Your task to perform on an android device: Open CNN.com Image 0: 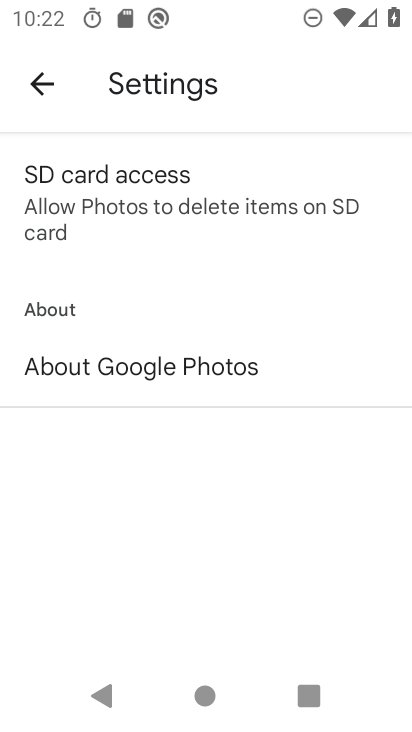
Step 0: press home button
Your task to perform on an android device: Open CNN.com Image 1: 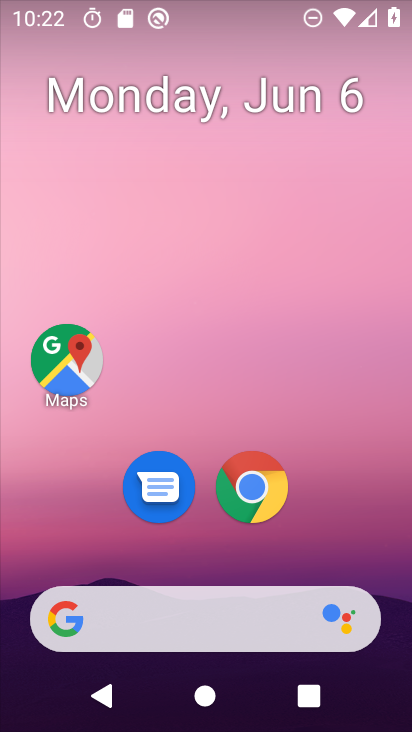
Step 1: drag from (392, 630) to (332, 23)
Your task to perform on an android device: Open CNN.com Image 2: 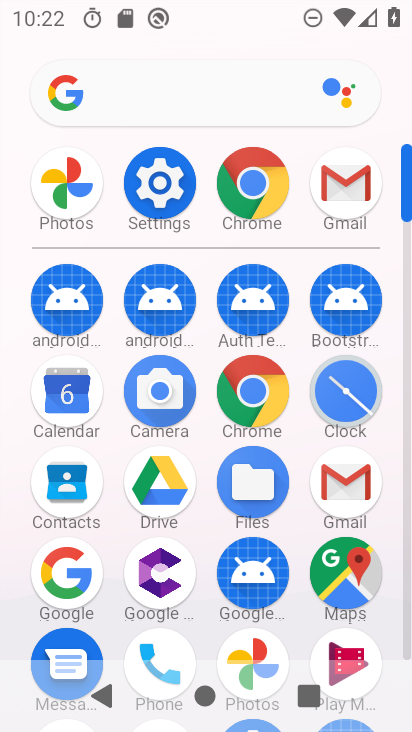
Step 2: click (79, 581)
Your task to perform on an android device: Open CNN.com Image 3: 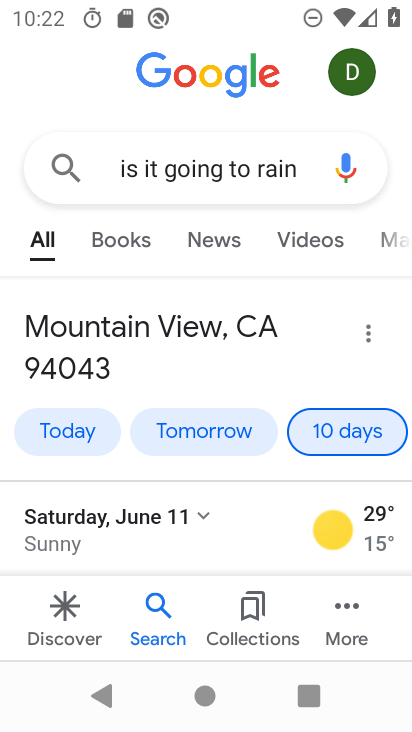
Step 3: press back button
Your task to perform on an android device: Open CNN.com Image 4: 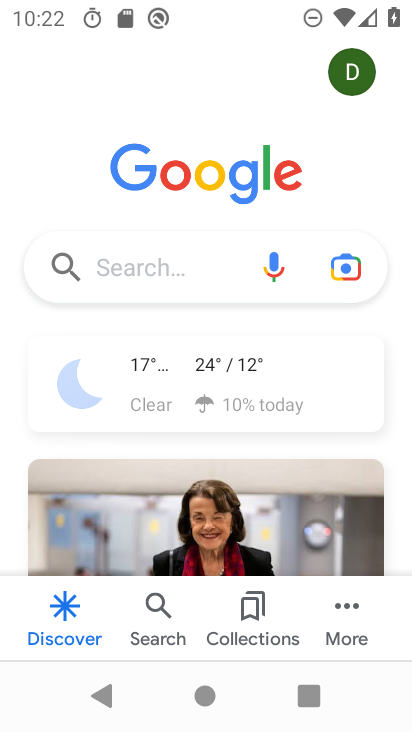
Step 4: click (132, 269)
Your task to perform on an android device: Open CNN.com Image 5: 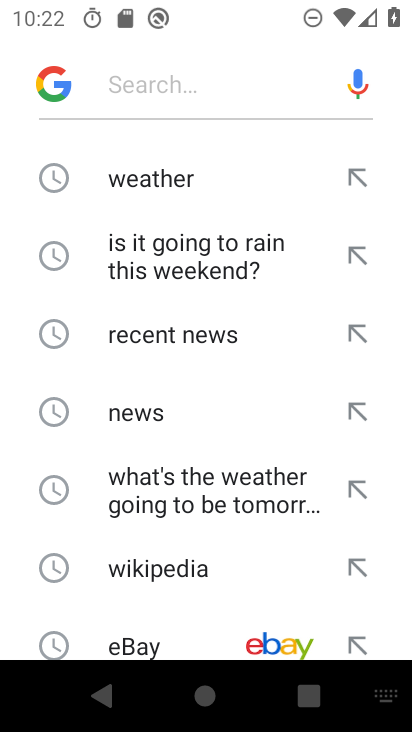
Step 5: drag from (122, 548) to (207, 102)
Your task to perform on an android device: Open CNN.com Image 6: 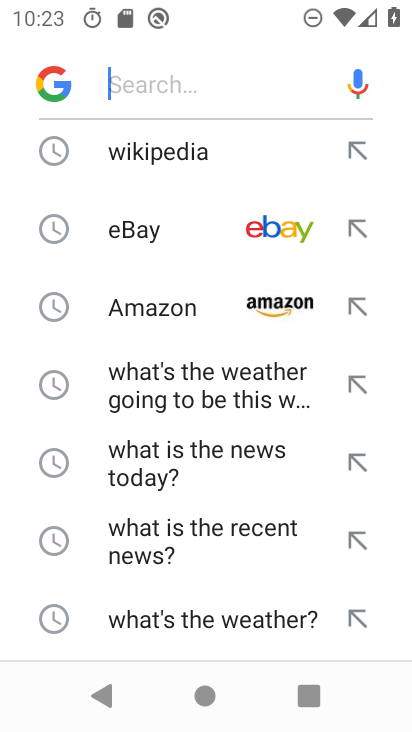
Step 6: drag from (104, 593) to (216, 93)
Your task to perform on an android device: Open CNN.com Image 7: 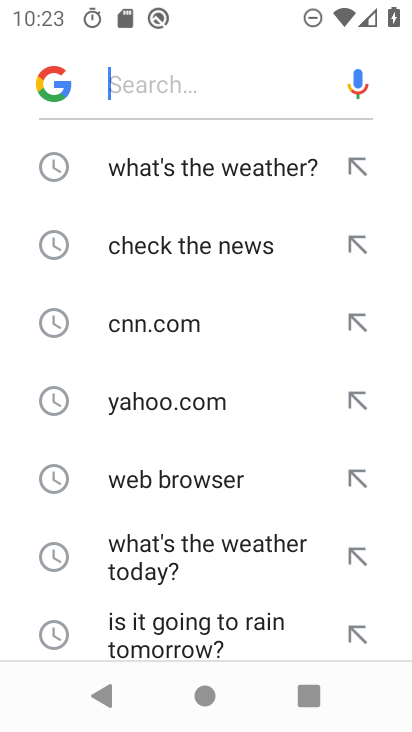
Step 7: click (179, 339)
Your task to perform on an android device: Open CNN.com Image 8: 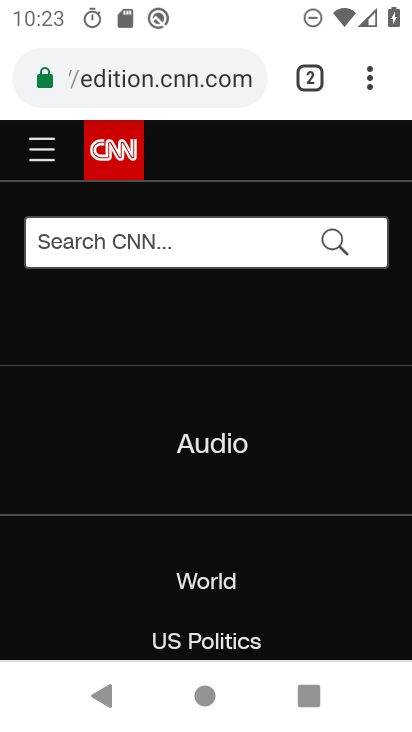
Step 8: task complete